Your task to perform on an android device: Open settings Image 0: 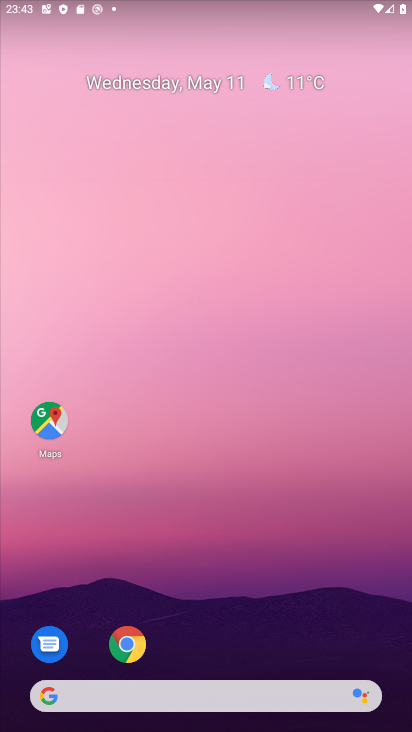
Step 0: drag from (211, 661) to (225, 179)
Your task to perform on an android device: Open settings Image 1: 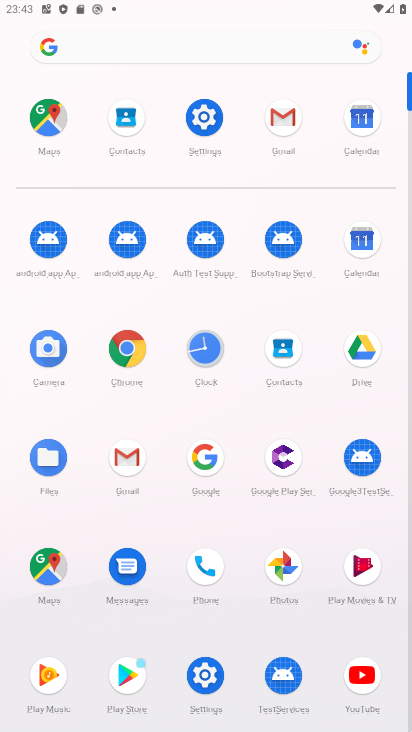
Step 1: click (199, 118)
Your task to perform on an android device: Open settings Image 2: 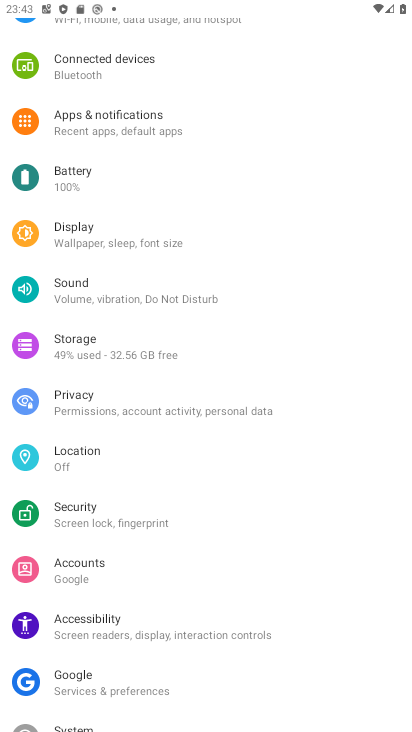
Step 2: task complete